Your task to perform on an android device: change the clock style Image 0: 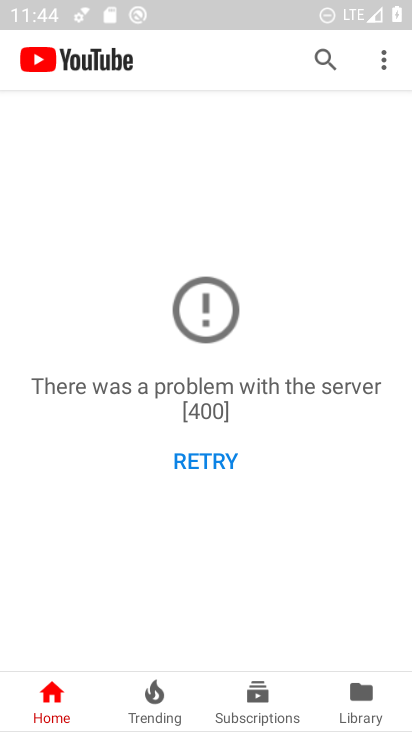
Step 0: press home button
Your task to perform on an android device: change the clock style Image 1: 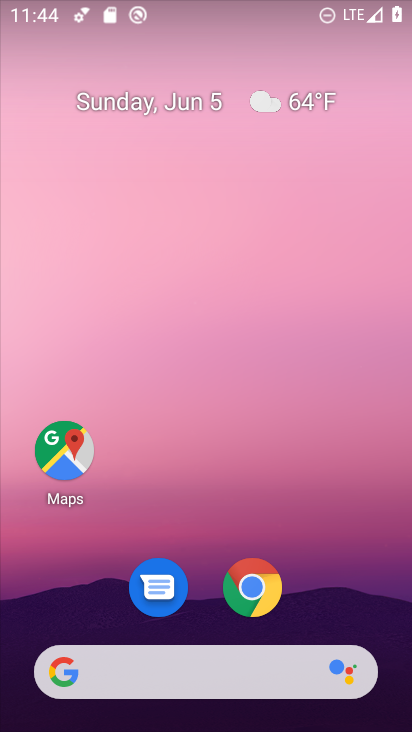
Step 1: drag from (226, 418) to (194, 66)
Your task to perform on an android device: change the clock style Image 2: 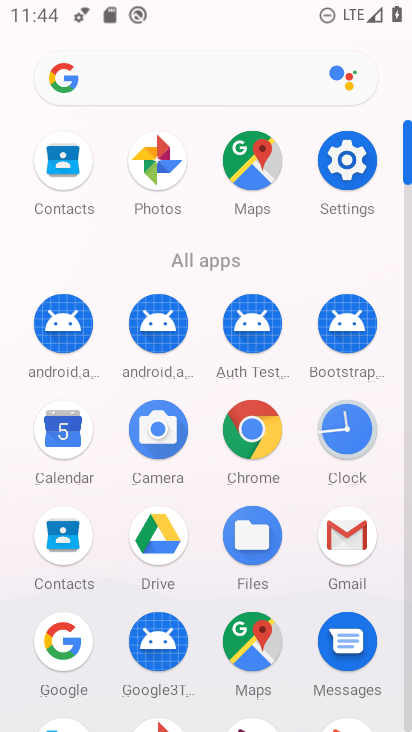
Step 2: click (349, 435)
Your task to perform on an android device: change the clock style Image 3: 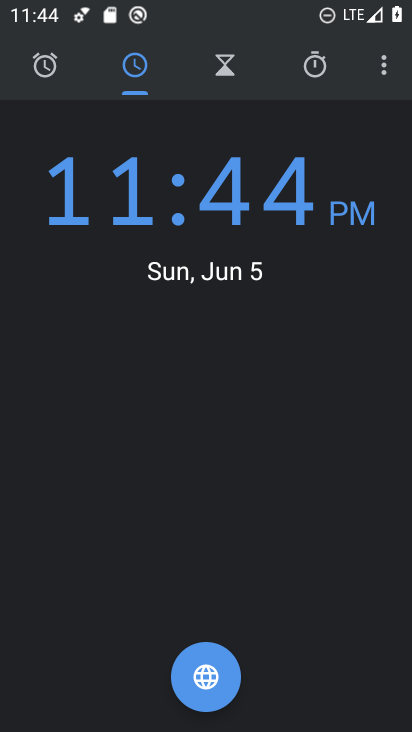
Step 3: click (382, 68)
Your task to perform on an android device: change the clock style Image 4: 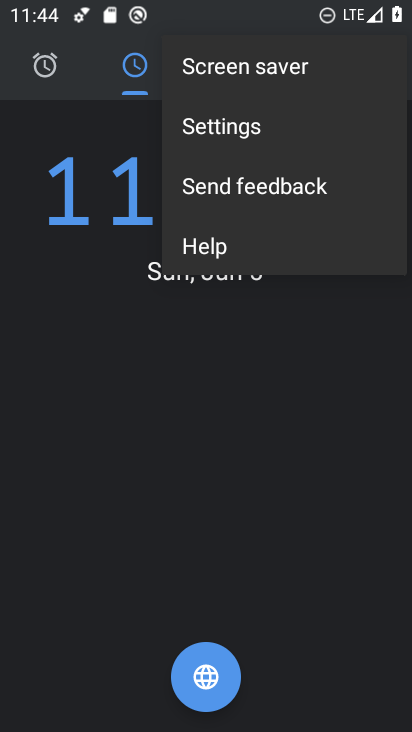
Step 4: click (297, 118)
Your task to perform on an android device: change the clock style Image 5: 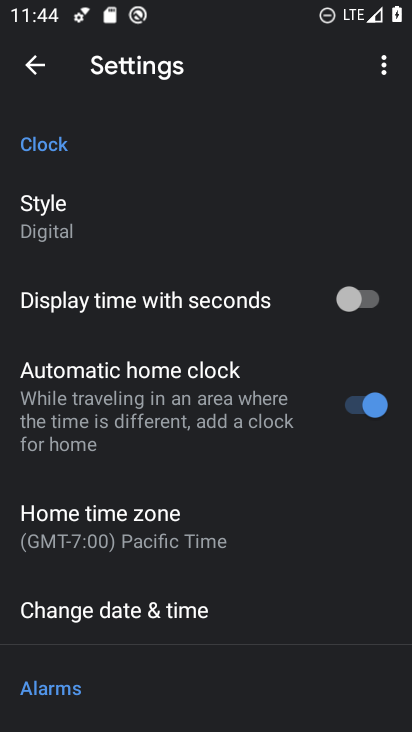
Step 5: click (105, 234)
Your task to perform on an android device: change the clock style Image 6: 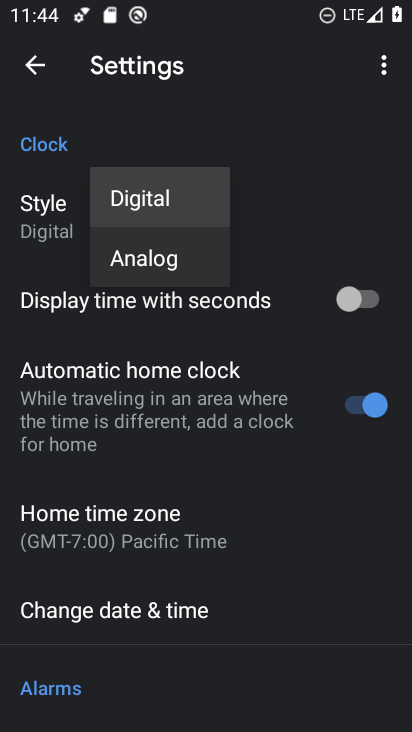
Step 6: click (184, 287)
Your task to perform on an android device: change the clock style Image 7: 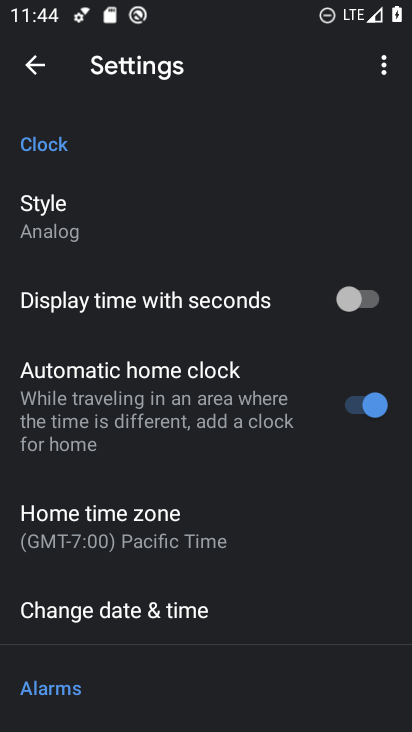
Step 7: task complete